Your task to perform on an android device: Open notification settings Image 0: 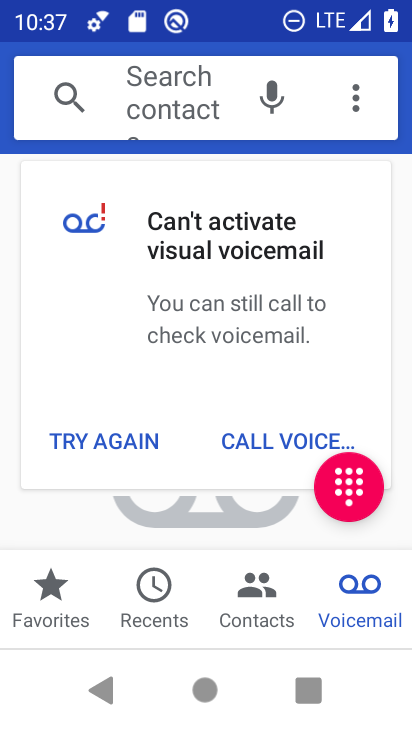
Step 0: press home button
Your task to perform on an android device: Open notification settings Image 1: 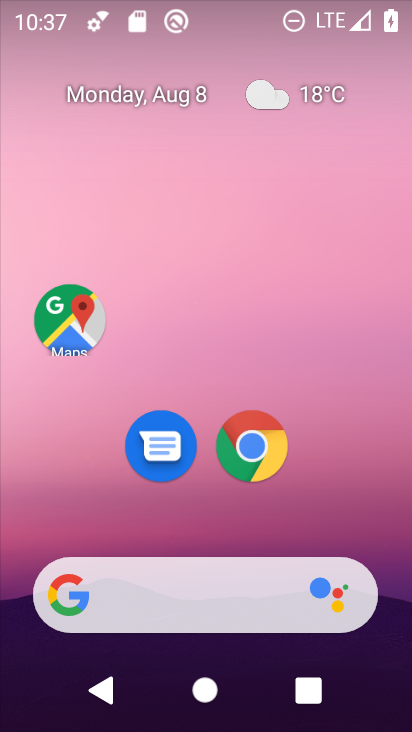
Step 1: drag from (405, 629) to (373, 66)
Your task to perform on an android device: Open notification settings Image 2: 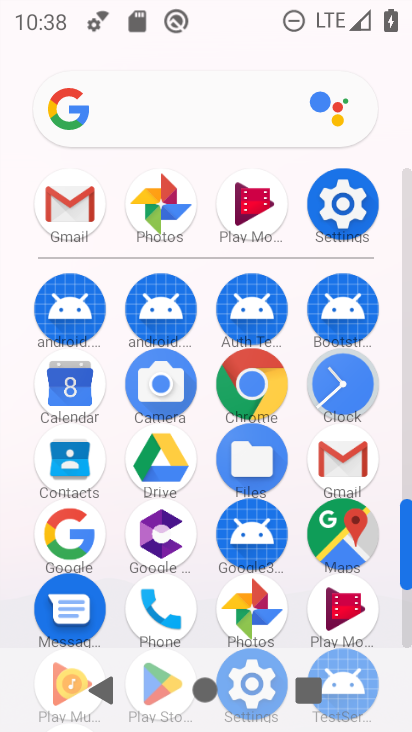
Step 2: click (405, 624)
Your task to perform on an android device: Open notification settings Image 3: 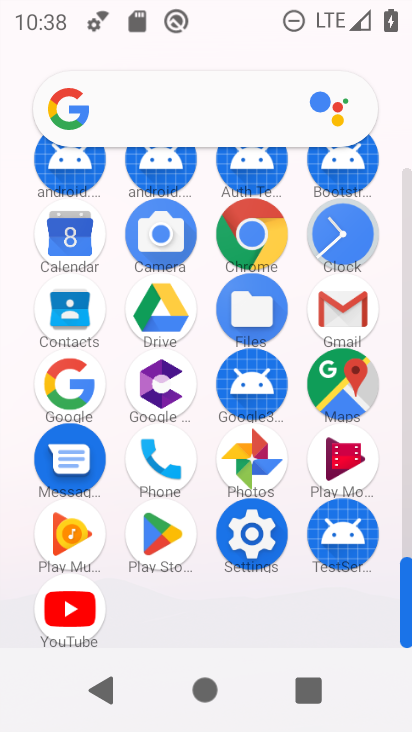
Step 3: click (250, 533)
Your task to perform on an android device: Open notification settings Image 4: 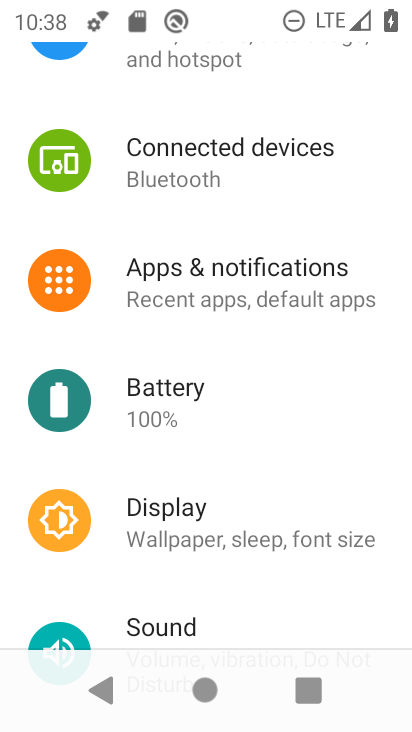
Step 4: click (219, 269)
Your task to perform on an android device: Open notification settings Image 5: 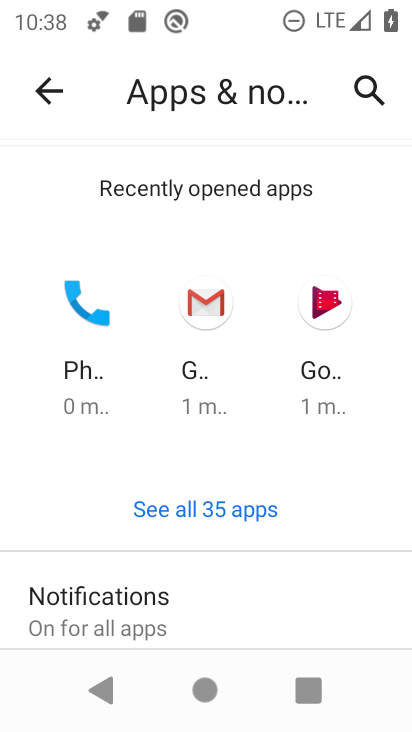
Step 5: drag from (292, 598) to (262, 238)
Your task to perform on an android device: Open notification settings Image 6: 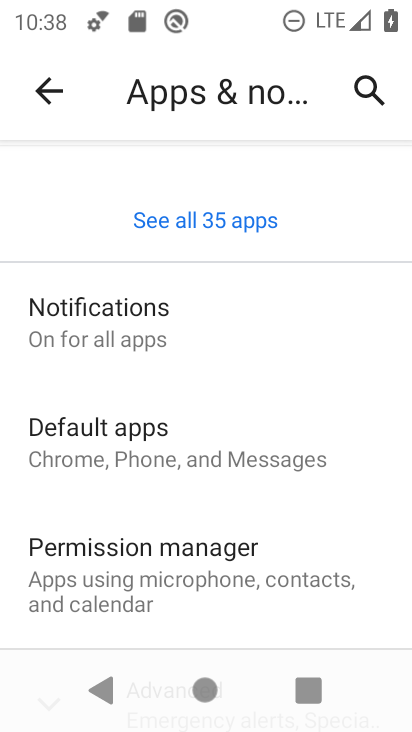
Step 6: click (102, 295)
Your task to perform on an android device: Open notification settings Image 7: 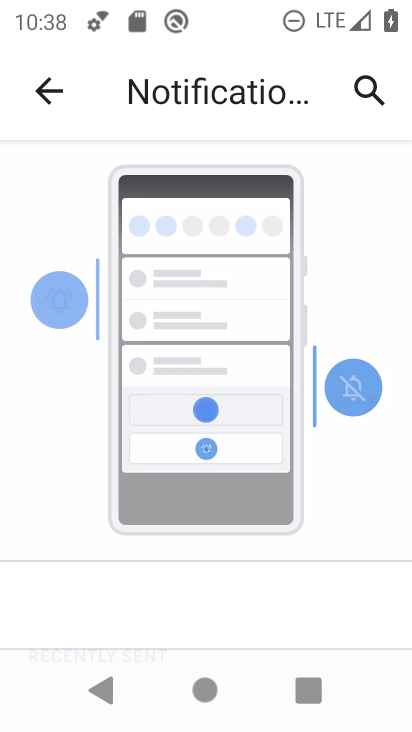
Step 7: task complete